Your task to perform on an android device: change notifications settings Image 0: 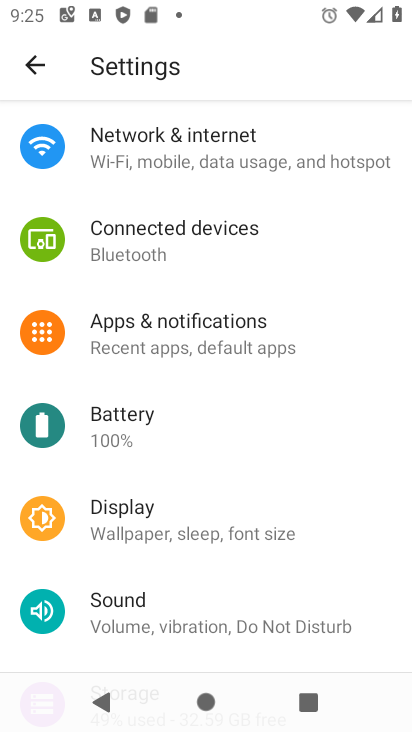
Step 0: press back button
Your task to perform on an android device: change notifications settings Image 1: 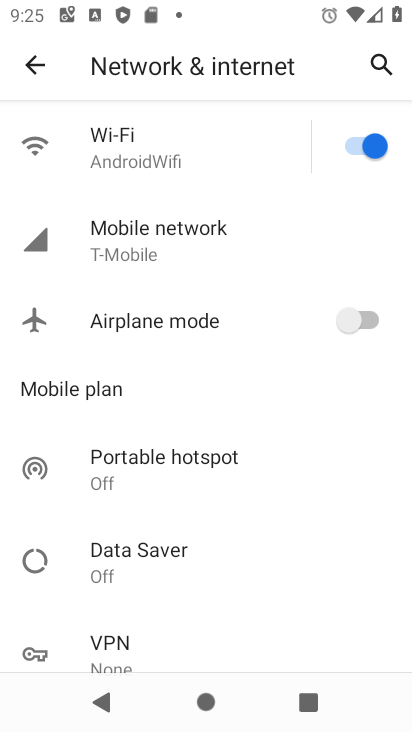
Step 1: click (20, 45)
Your task to perform on an android device: change notifications settings Image 2: 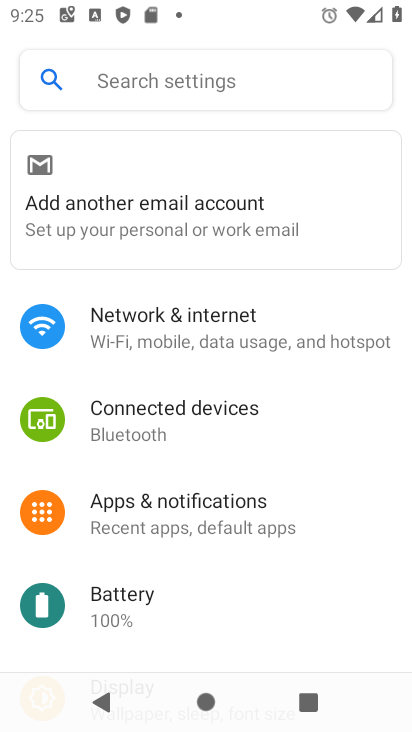
Step 2: click (243, 510)
Your task to perform on an android device: change notifications settings Image 3: 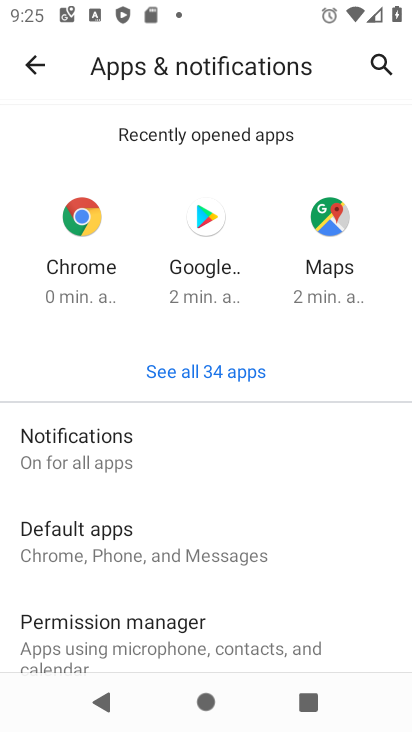
Step 3: drag from (271, 576) to (303, 128)
Your task to perform on an android device: change notifications settings Image 4: 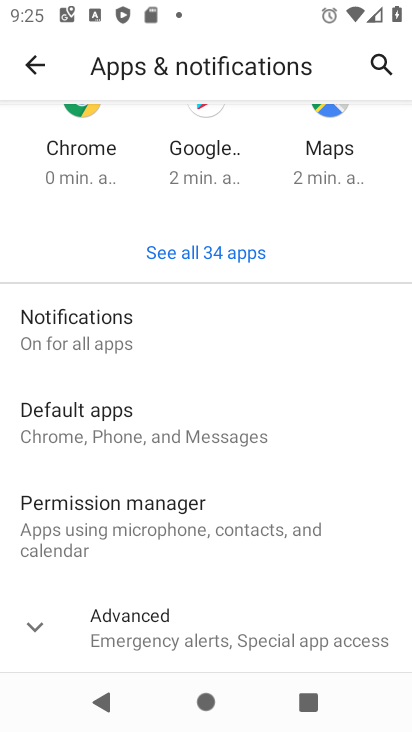
Step 4: click (26, 615)
Your task to perform on an android device: change notifications settings Image 5: 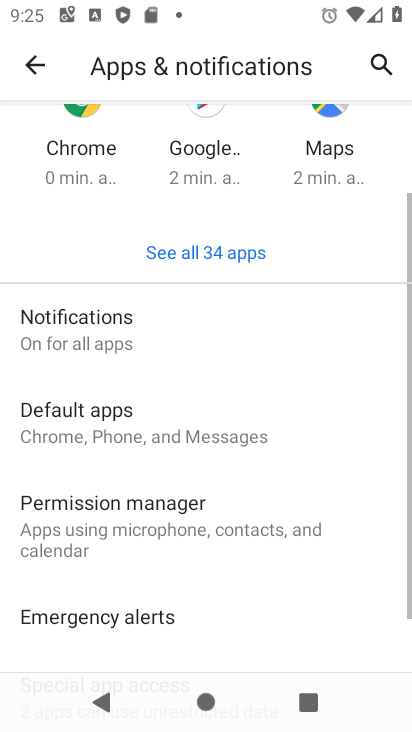
Step 5: drag from (217, 605) to (275, 223)
Your task to perform on an android device: change notifications settings Image 6: 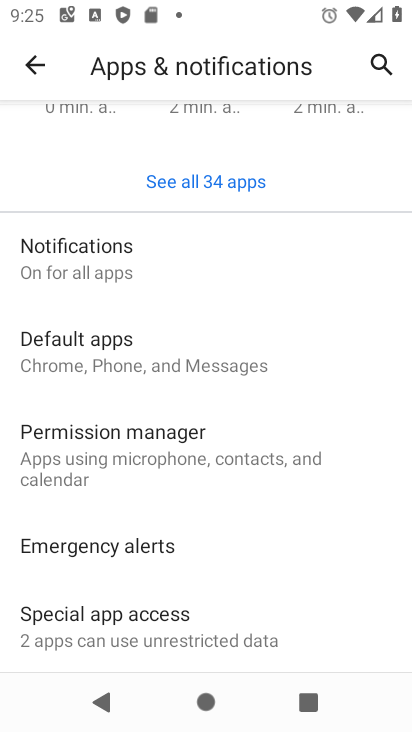
Step 6: click (146, 250)
Your task to perform on an android device: change notifications settings Image 7: 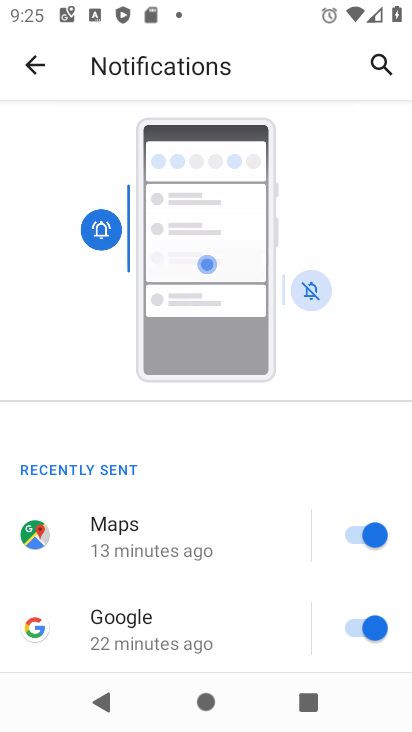
Step 7: drag from (258, 624) to (271, 153)
Your task to perform on an android device: change notifications settings Image 8: 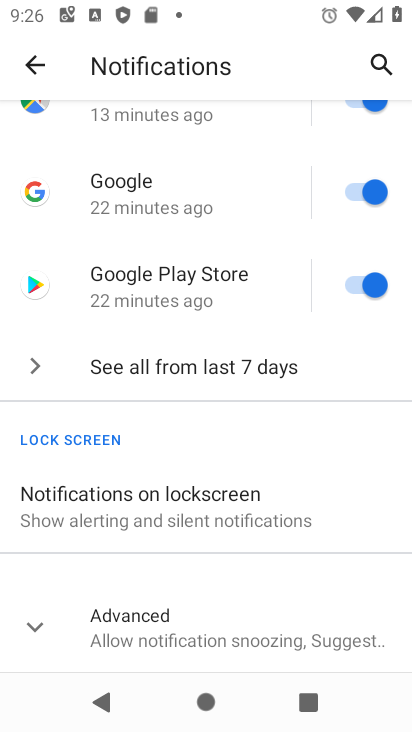
Step 8: click (73, 618)
Your task to perform on an android device: change notifications settings Image 9: 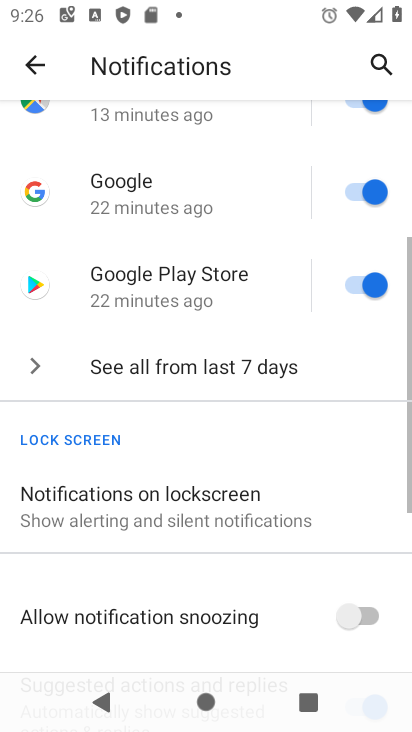
Step 9: task complete